Your task to perform on an android device: check data usage Image 0: 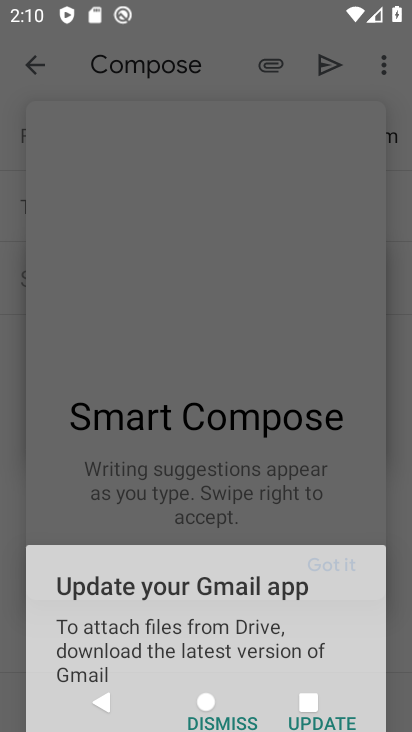
Step 0: press home button
Your task to perform on an android device: check data usage Image 1: 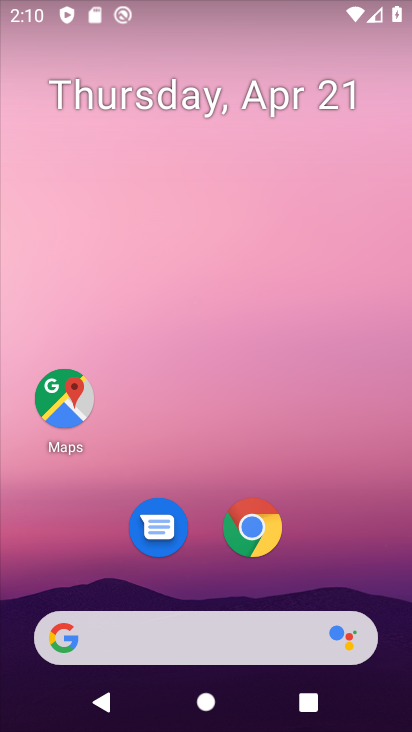
Step 1: drag from (206, 432) to (199, 181)
Your task to perform on an android device: check data usage Image 2: 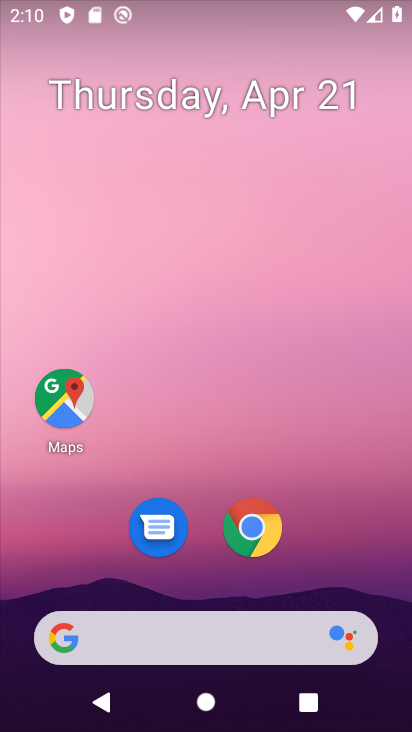
Step 2: drag from (317, 548) to (342, 149)
Your task to perform on an android device: check data usage Image 3: 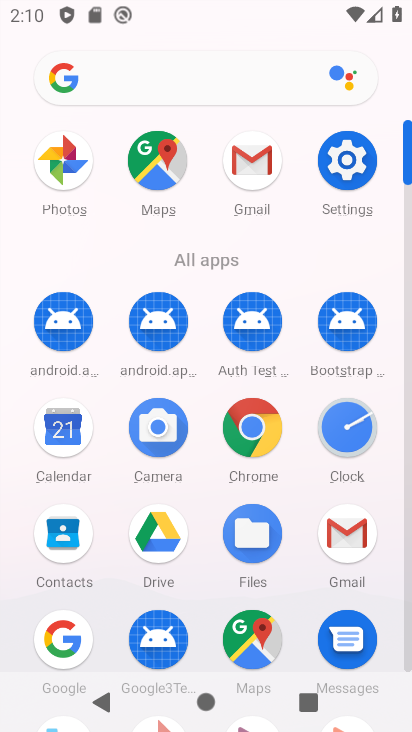
Step 3: click (344, 165)
Your task to perform on an android device: check data usage Image 4: 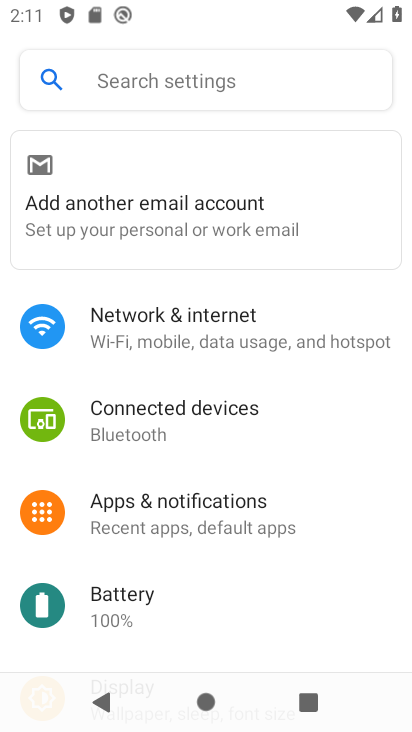
Step 4: click (164, 328)
Your task to perform on an android device: check data usage Image 5: 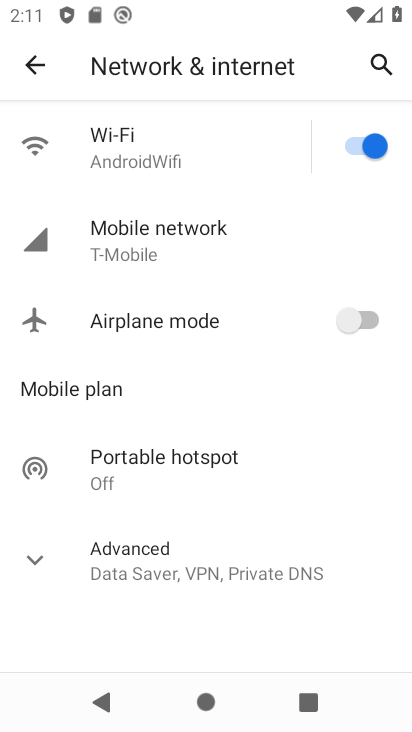
Step 5: click (147, 235)
Your task to perform on an android device: check data usage Image 6: 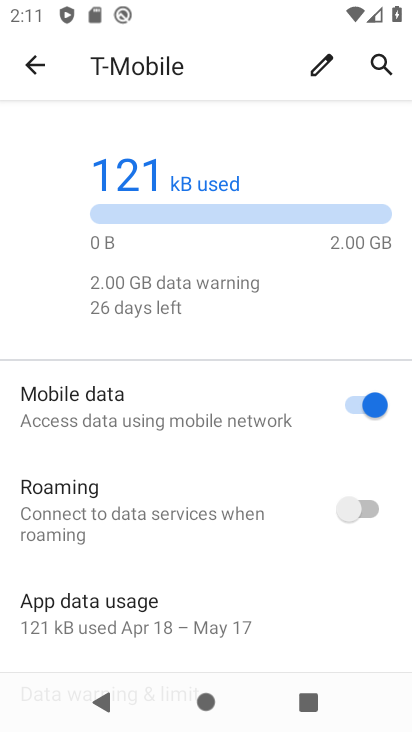
Step 6: task complete